Your task to perform on an android device: Open the calendar and show me this week's events? Image 0: 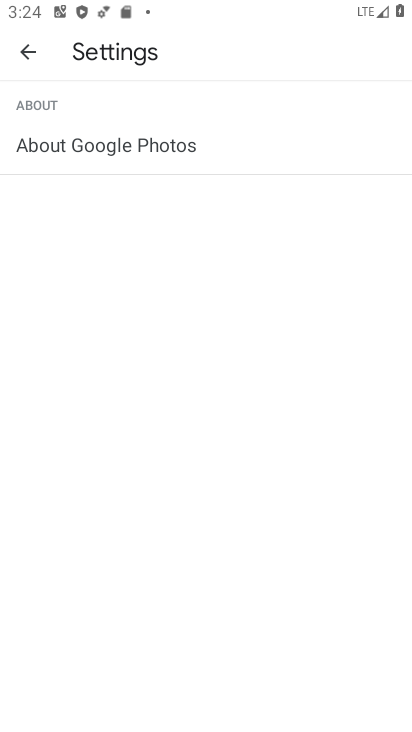
Step 0: press home button
Your task to perform on an android device: Open the calendar and show me this week's events? Image 1: 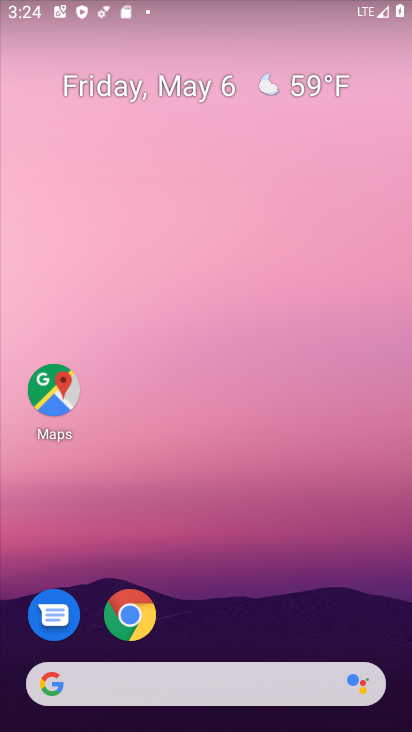
Step 1: drag from (243, 626) to (254, 191)
Your task to perform on an android device: Open the calendar and show me this week's events? Image 2: 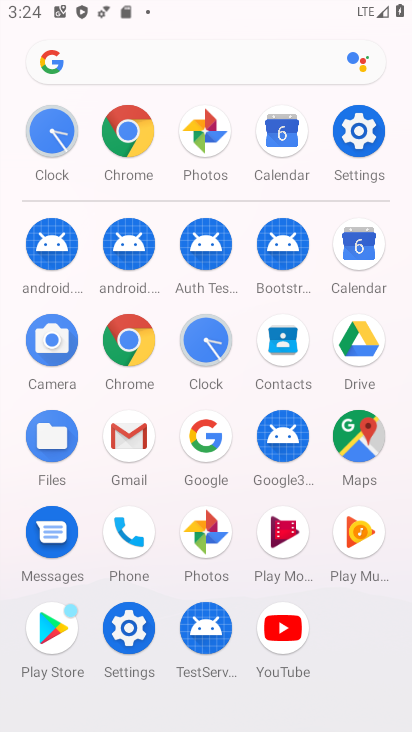
Step 2: click (356, 249)
Your task to perform on an android device: Open the calendar and show me this week's events? Image 3: 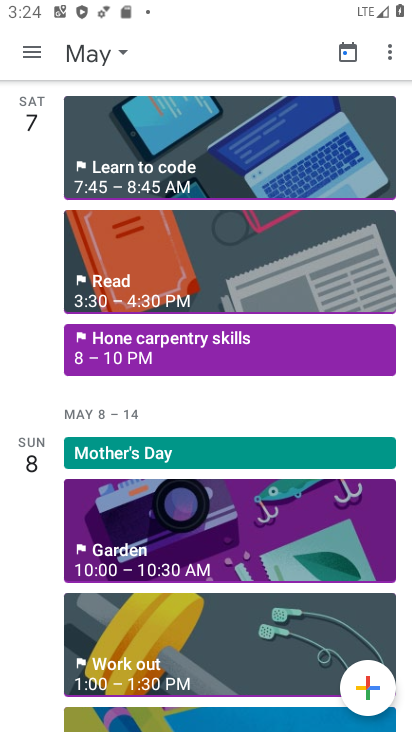
Step 3: click (36, 54)
Your task to perform on an android device: Open the calendar and show me this week's events? Image 4: 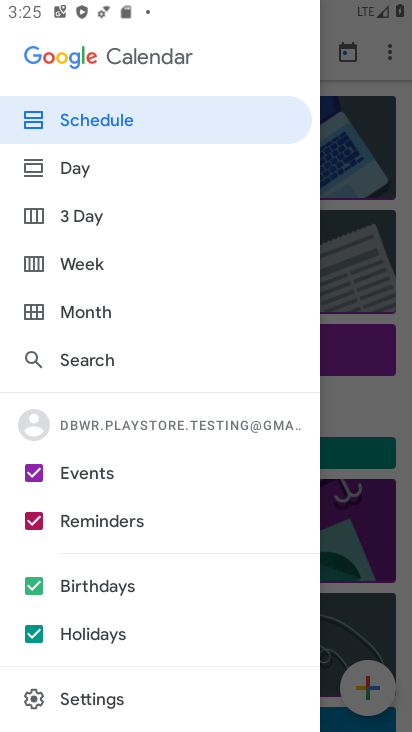
Step 4: click (90, 257)
Your task to perform on an android device: Open the calendar and show me this week's events? Image 5: 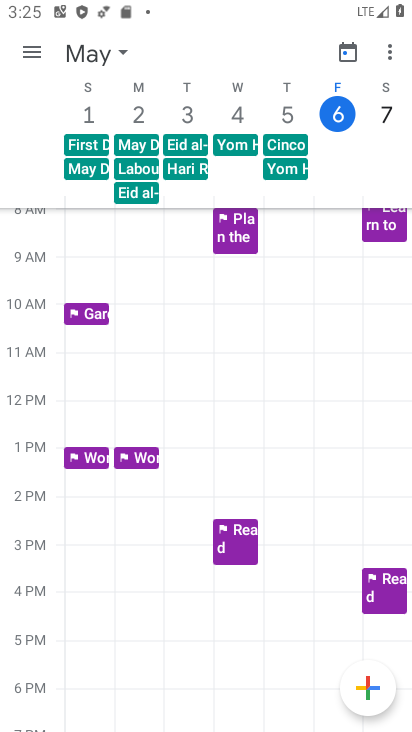
Step 5: click (241, 135)
Your task to perform on an android device: Open the calendar and show me this week's events? Image 6: 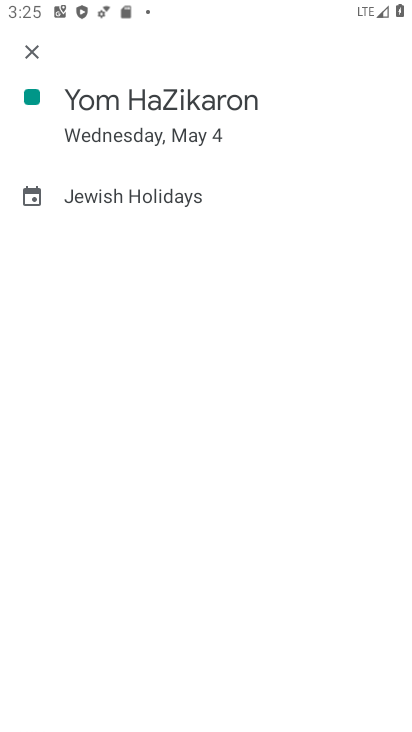
Step 6: click (41, 50)
Your task to perform on an android device: Open the calendar and show me this week's events? Image 7: 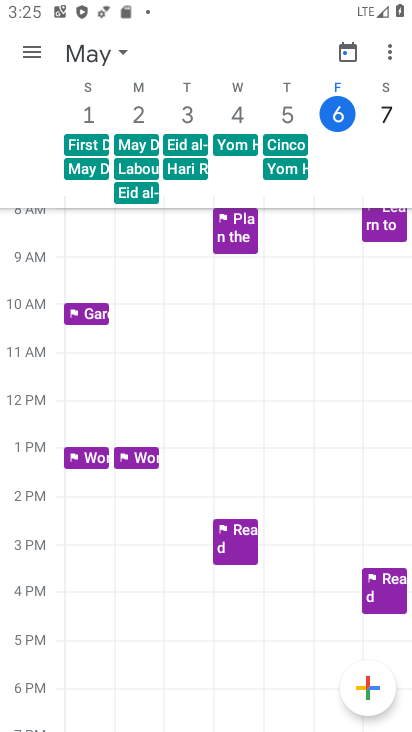
Step 7: click (32, 46)
Your task to perform on an android device: Open the calendar and show me this week's events? Image 8: 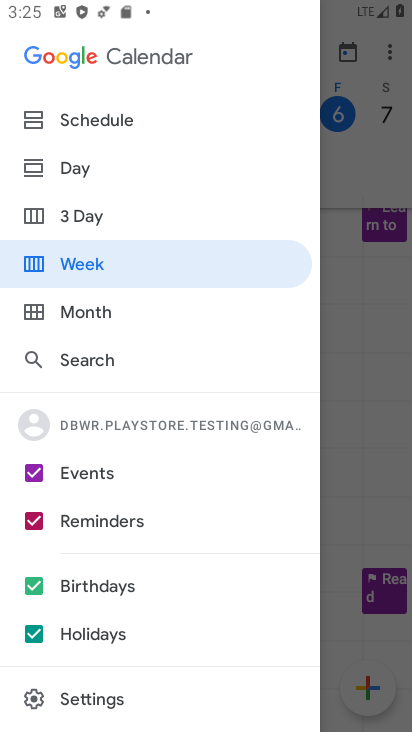
Step 8: click (88, 468)
Your task to perform on an android device: Open the calendar and show me this week's events? Image 9: 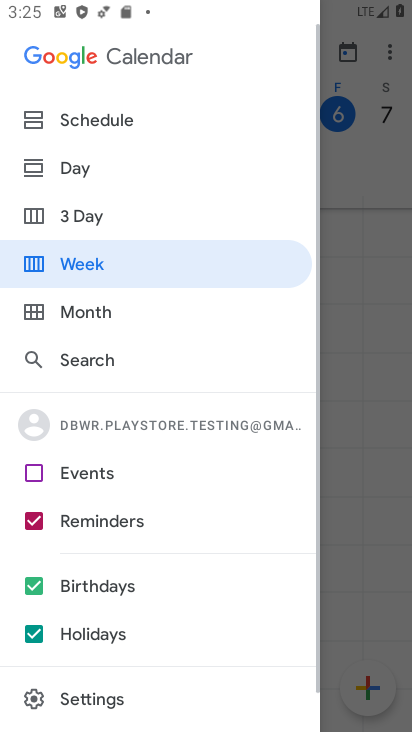
Step 9: click (89, 474)
Your task to perform on an android device: Open the calendar and show me this week's events? Image 10: 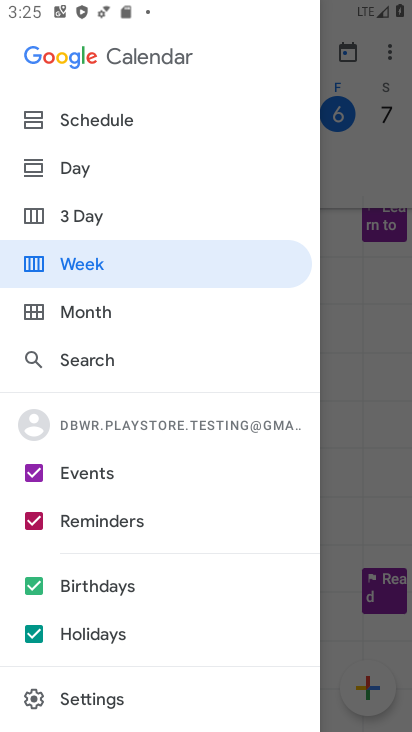
Step 10: click (339, 188)
Your task to perform on an android device: Open the calendar and show me this week's events? Image 11: 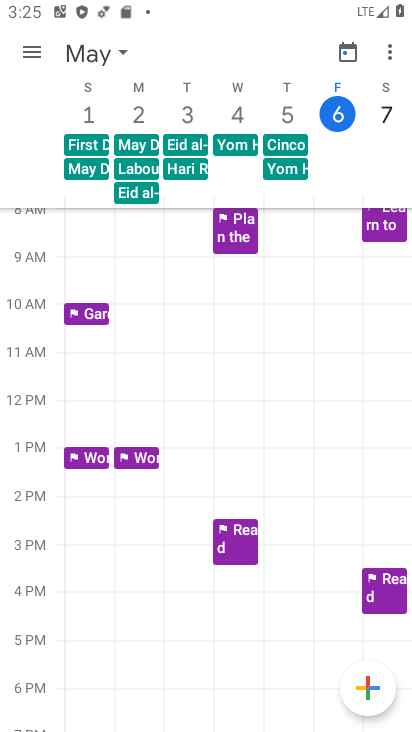
Step 11: task complete